Your task to perform on an android device: Open settings Image 0: 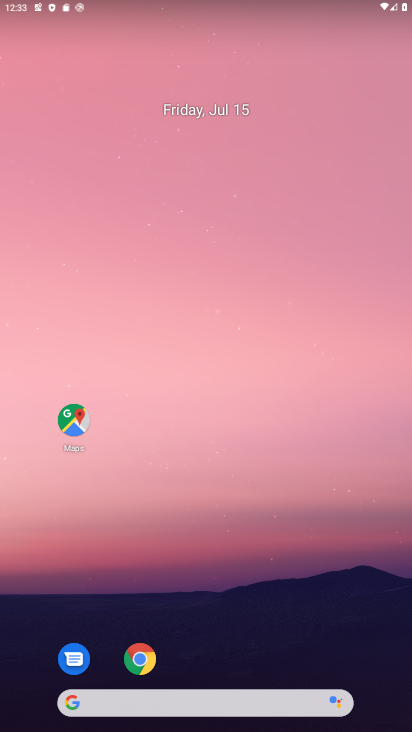
Step 0: drag from (196, 641) to (196, 260)
Your task to perform on an android device: Open settings Image 1: 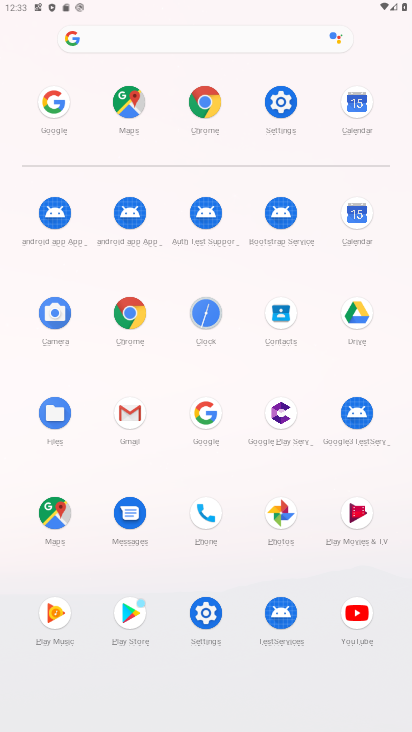
Step 1: click (264, 109)
Your task to perform on an android device: Open settings Image 2: 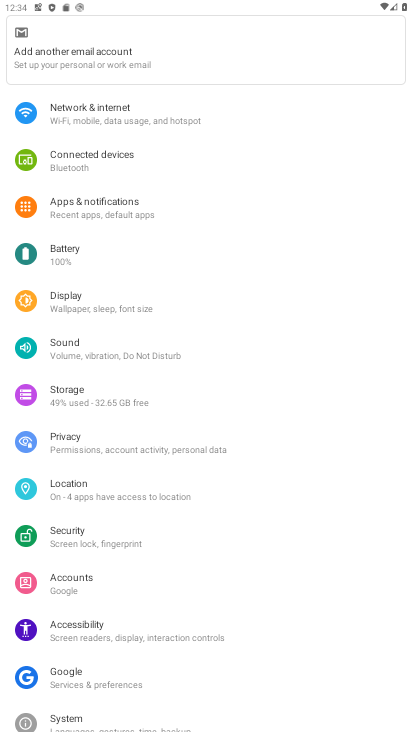
Step 2: task complete